Your task to perform on an android device: Open Reddit.com Image 0: 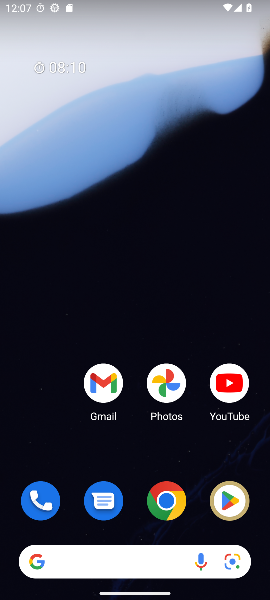
Step 0: click (166, 493)
Your task to perform on an android device: Open Reddit.com Image 1: 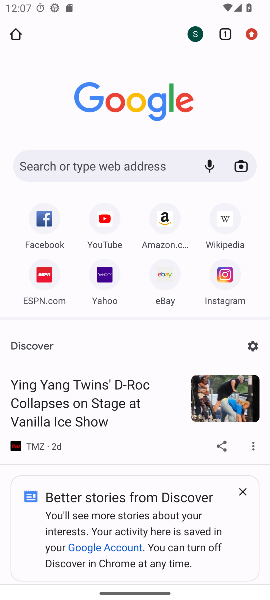
Step 1: click (90, 161)
Your task to perform on an android device: Open Reddit.com Image 2: 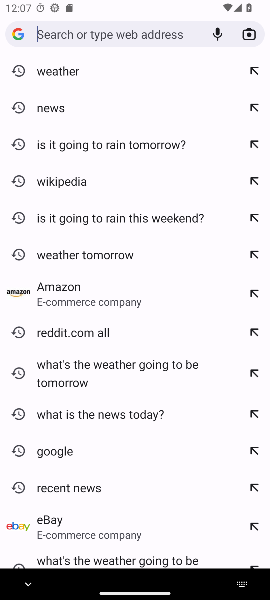
Step 2: type "reddit.com"
Your task to perform on an android device: Open Reddit.com Image 3: 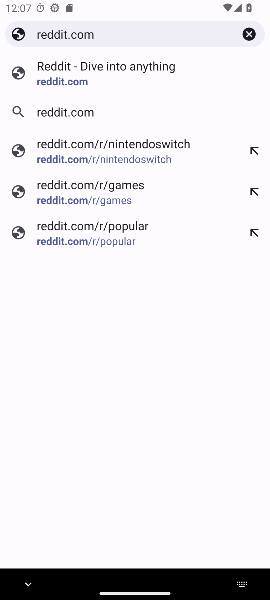
Step 3: click (158, 57)
Your task to perform on an android device: Open Reddit.com Image 4: 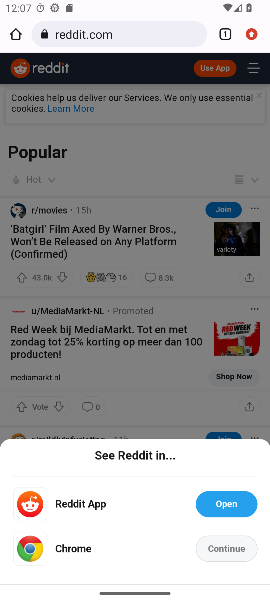
Step 4: task complete